Your task to perform on an android device: Open the calendar app, open the side menu, and click the "Day" option Image 0: 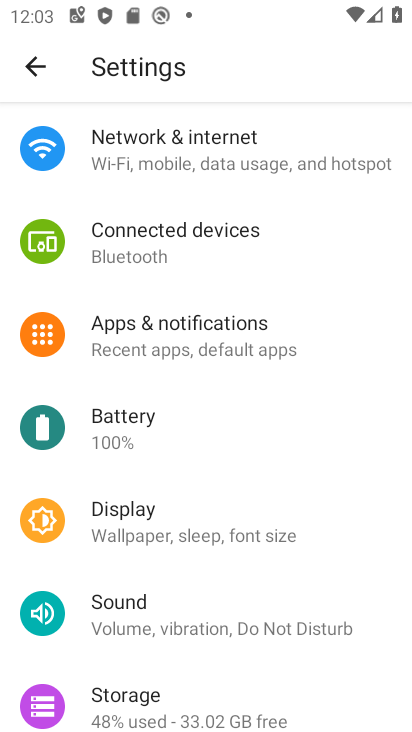
Step 0: press home button
Your task to perform on an android device: Open the calendar app, open the side menu, and click the "Day" option Image 1: 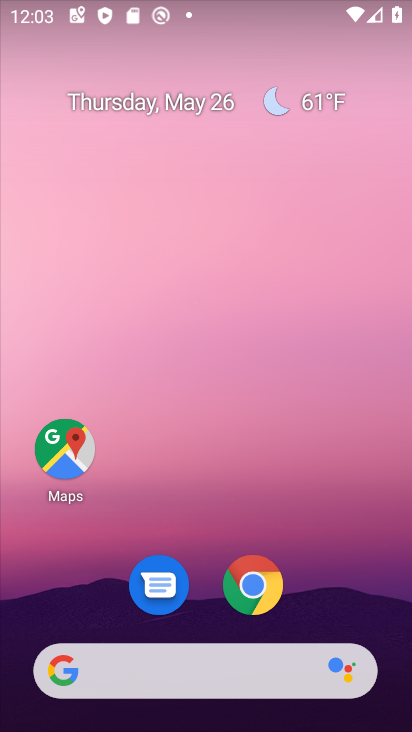
Step 1: drag from (209, 507) to (226, 65)
Your task to perform on an android device: Open the calendar app, open the side menu, and click the "Day" option Image 2: 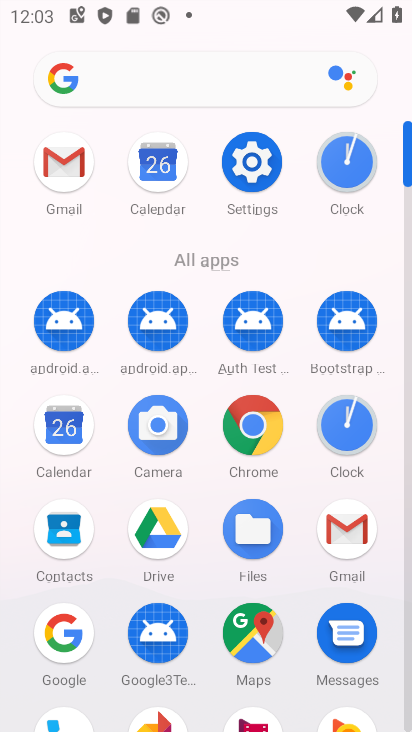
Step 2: click (172, 172)
Your task to perform on an android device: Open the calendar app, open the side menu, and click the "Day" option Image 3: 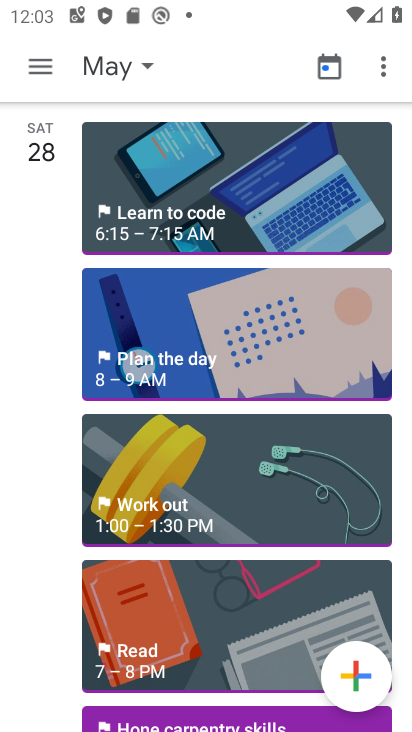
Step 3: click (42, 55)
Your task to perform on an android device: Open the calendar app, open the side menu, and click the "Day" option Image 4: 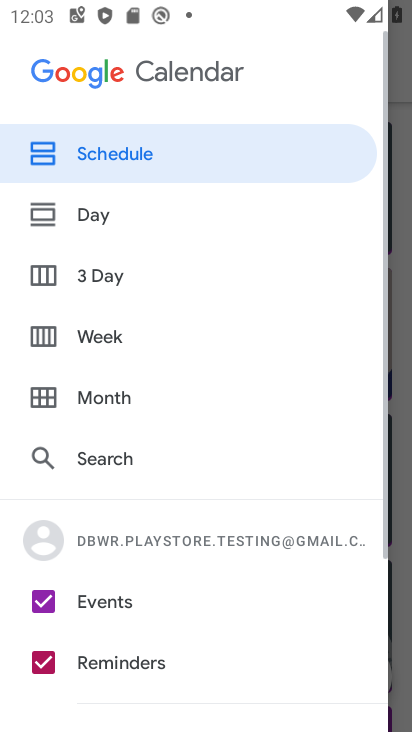
Step 4: click (74, 211)
Your task to perform on an android device: Open the calendar app, open the side menu, and click the "Day" option Image 5: 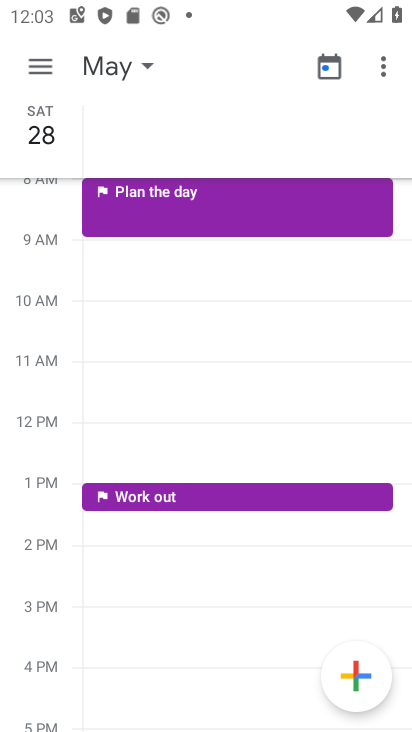
Step 5: task complete